Your task to perform on an android device: Go to calendar. Show me events next week Image 0: 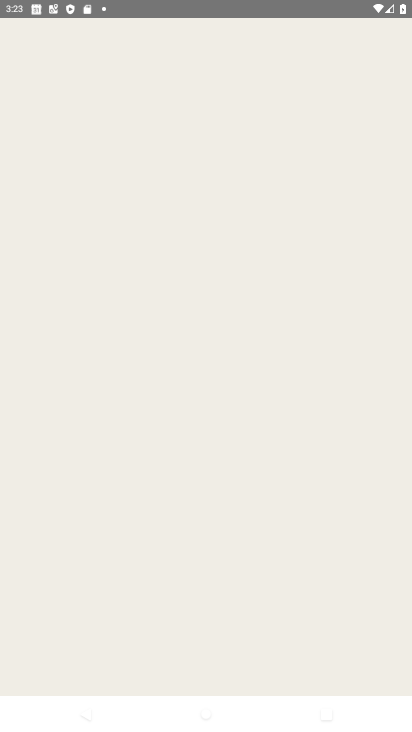
Step 0: press home button
Your task to perform on an android device: Go to calendar. Show me events next week Image 1: 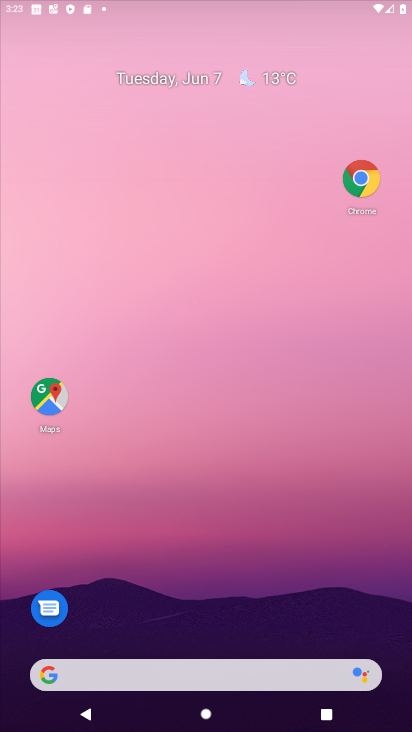
Step 1: drag from (124, 651) to (212, 174)
Your task to perform on an android device: Go to calendar. Show me events next week Image 2: 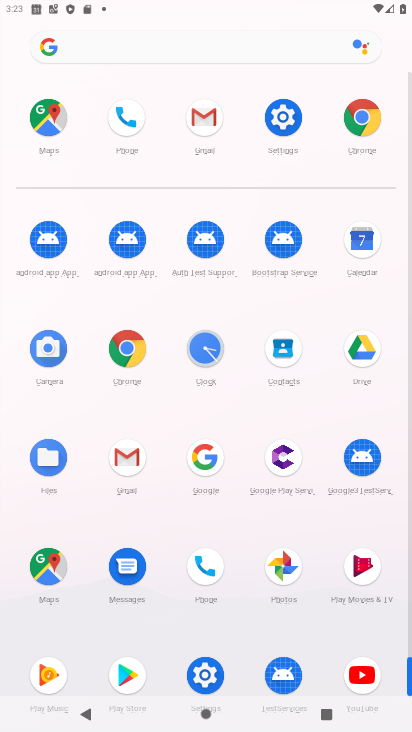
Step 2: click (370, 244)
Your task to perform on an android device: Go to calendar. Show me events next week Image 3: 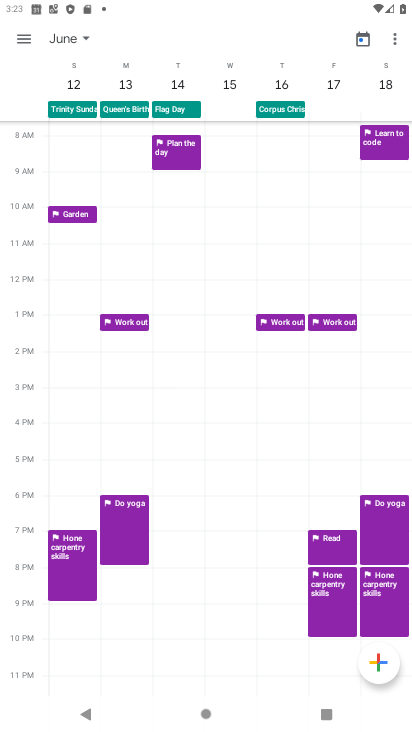
Step 3: click (28, 38)
Your task to perform on an android device: Go to calendar. Show me events next week Image 4: 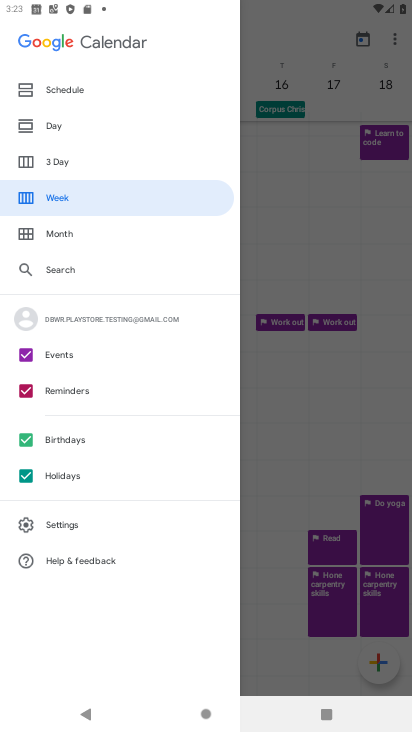
Step 4: press back button
Your task to perform on an android device: Go to calendar. Show me events next week Image 5: 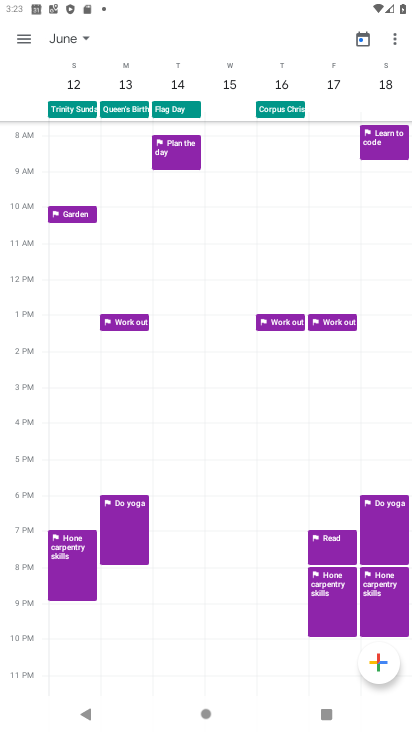
Step 5: click (53, 33)
Your task to perform on an android device: Go to calendar. Show me events next week Image 6: 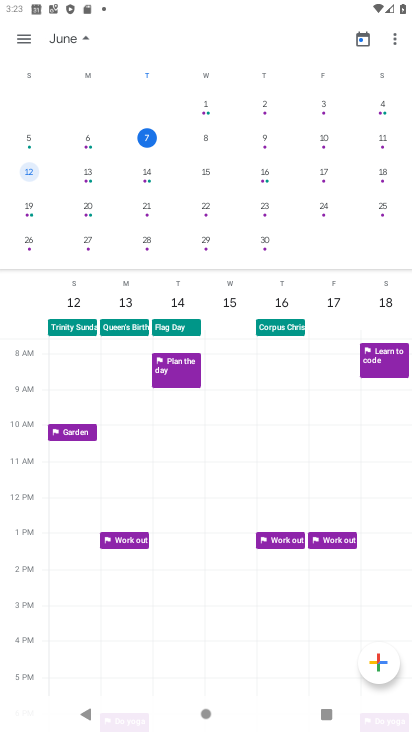
Step 6: click (27, 213)
Your task to perform on an android device: Go to calendar. Show me events next week Image 7: 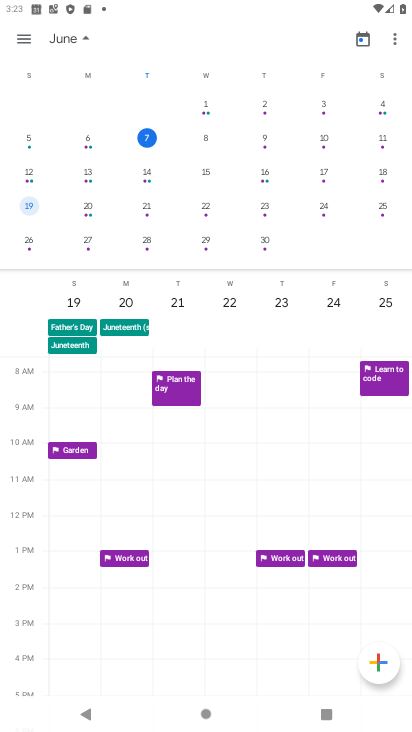
Step 7: click (89, 48)
Your task to perform on an android device: Go to calendar. Show me events next week Image 8: 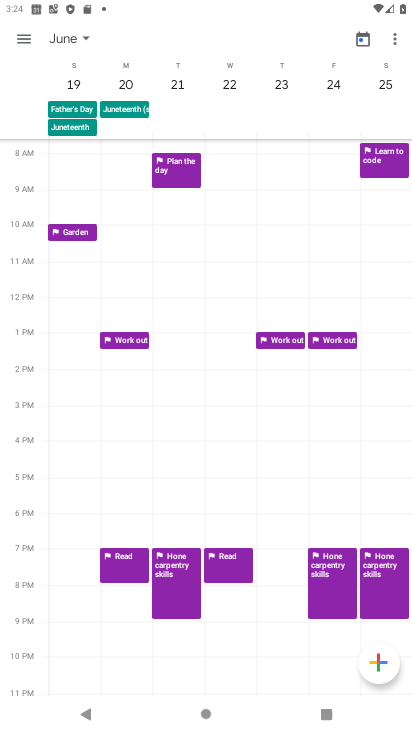
Step 8: task complete